Your task to perform on an android device: Is it going to rain tomorrow? Image 0: 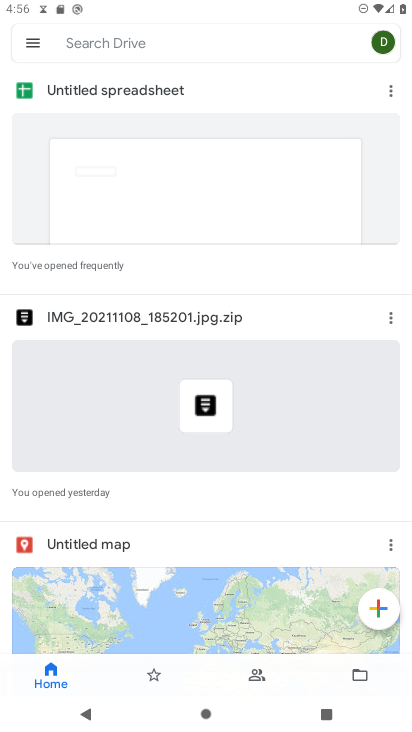
Step 0: press home button
Your task to perform on an android device: Is it going to rain tomorrow? Image 1: 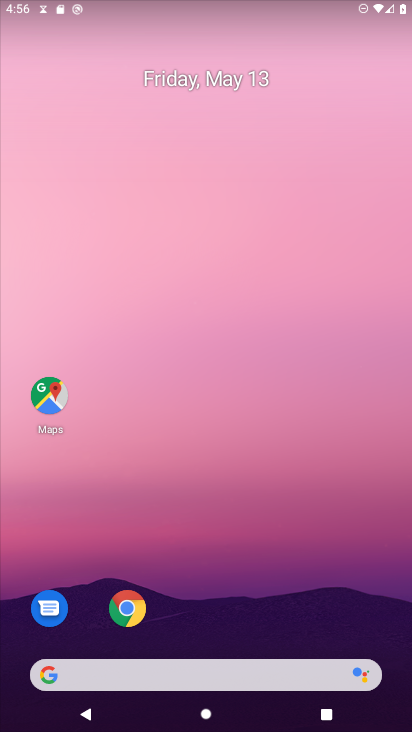
Step 1: drag from (264, 650) to (313, 9)
Your task to perform on an android device: Is it going to rain tomorrow? Image 2: 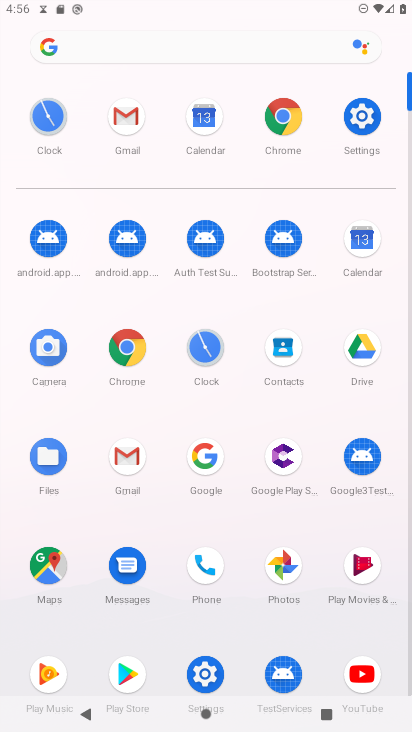
Step 2: click (133, 352)
Your task to perform on an android device: Is it going to rain tomorrow? Image 3: 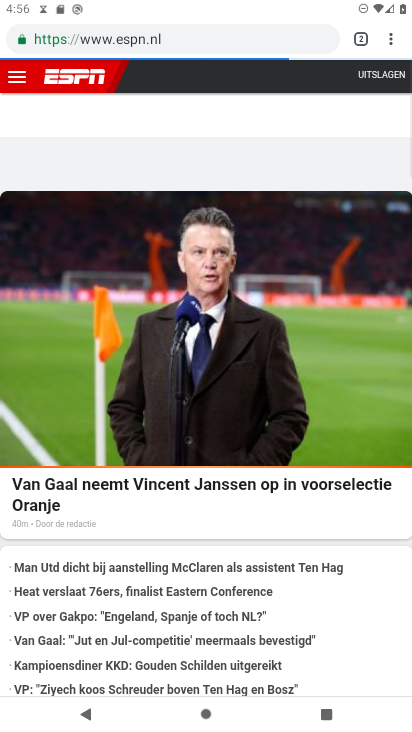
Step 3: click (152, 28)
Your task to perform on an android device: Is it going to rain tomorrow? Image 4: 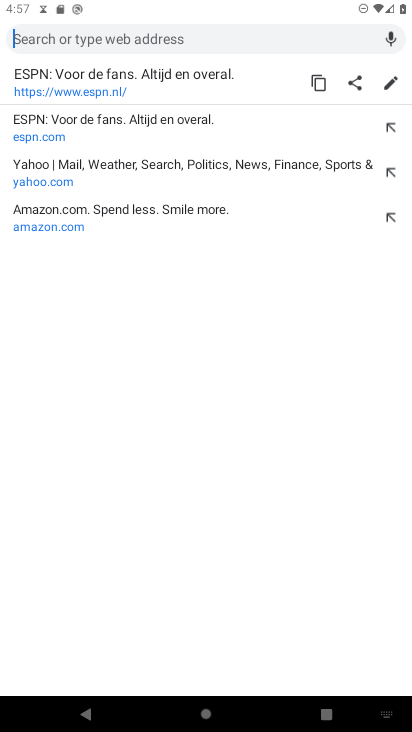
Step 4: type "is it going to be rain tomorrow"
Your task to perform on an android device: Is it going to rain tomorrow? Image 5: 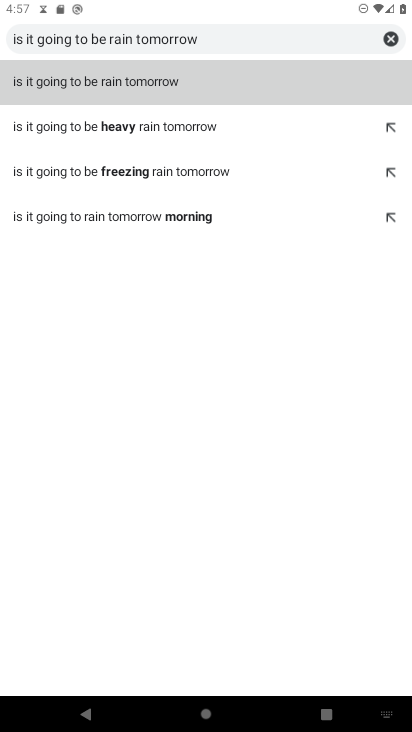
Step 5: click (148, 87)
Your task to perform on an android device: Is it going to rain tomorrow? Image 6: 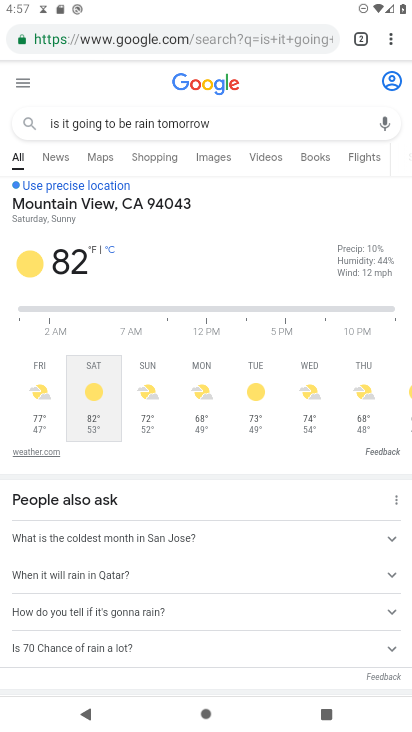
Step 6: task complete